Your task to perform on an android device: toggle pop-ups in chrome Image 0: 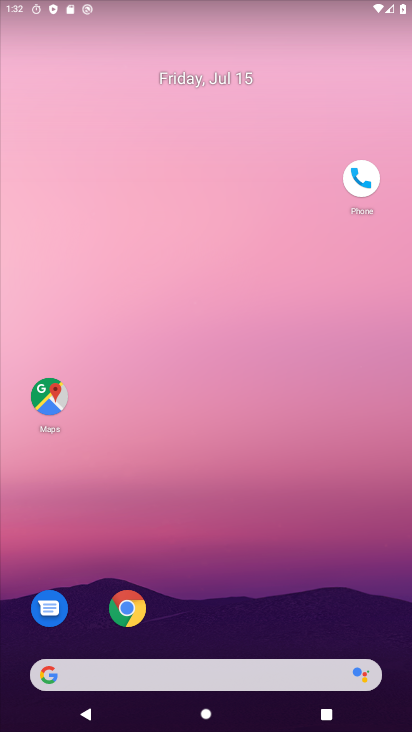
Step 0: drag from (216, 493) to (297, 57)
Your task to perform on an android device: toggle pop-ups in chrome Image 1: 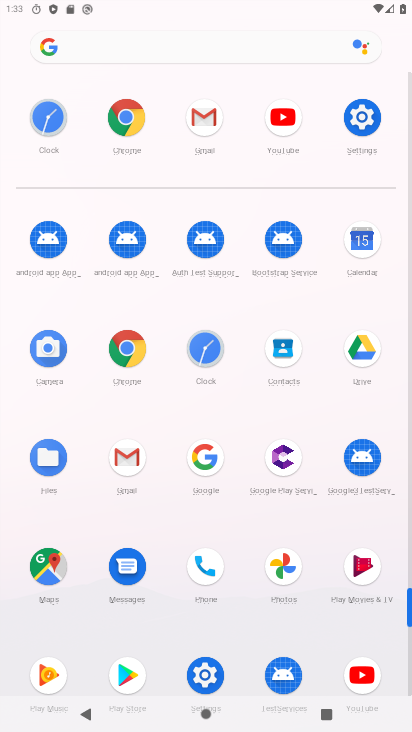
Step 1: drag from (203, 580) to (252, 243)
Your task to perform on an android device: toggle pop-ups in chrome Image 2: 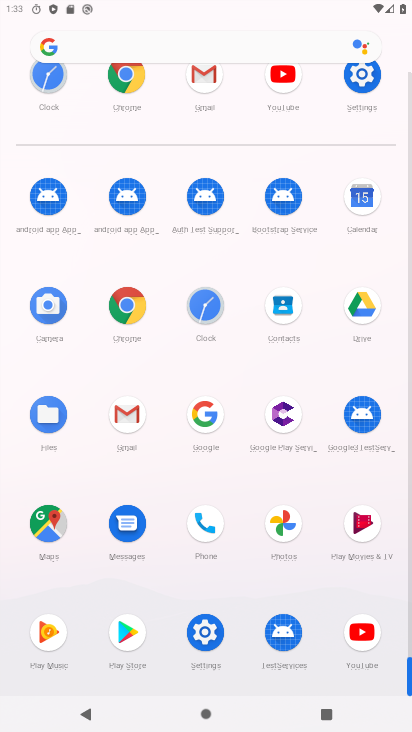
Step 2: click (117, 307)
Your task to perform on an android device: toggle pop-ups in chrome Image 3: 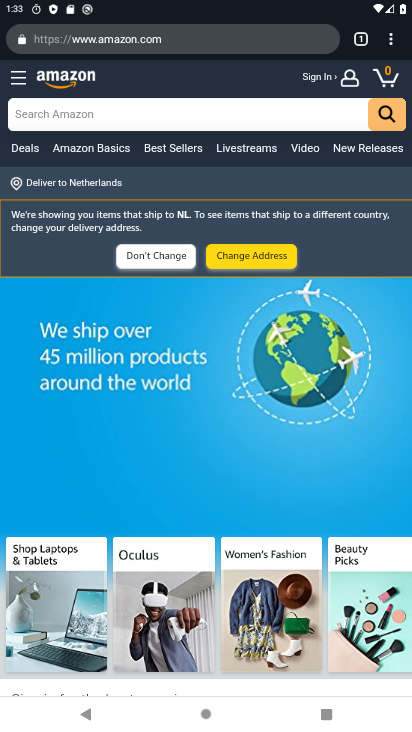
Step 3: drag from (307, 598) to (308, 281)
Your task to perform on an android device: toggle pop-ups in chrome Image 4: 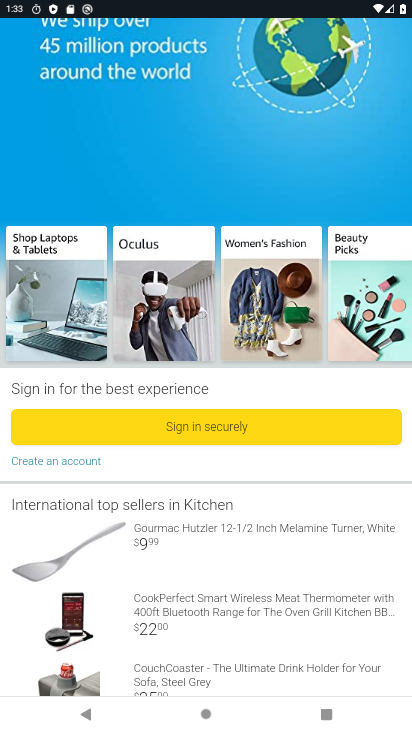
Step 4: drag from (288, 174) to (355, 699)
Your task to perform on an android device: toggle pop-ups in chrome Image 5: 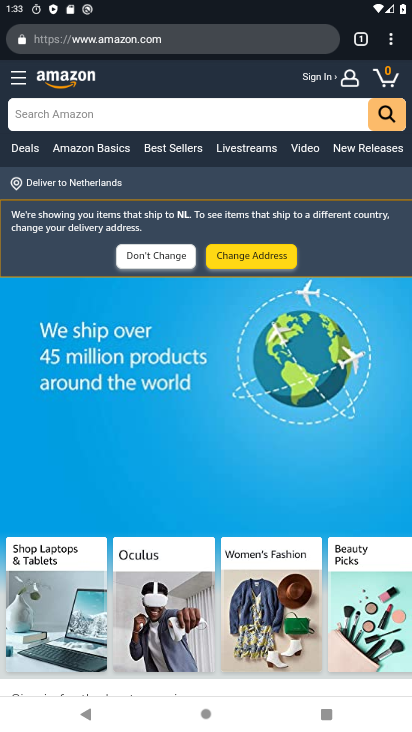
Step 5: click (388, 32)
Your task to perform on an android device: toggle pop-ups in chrome Image 6: 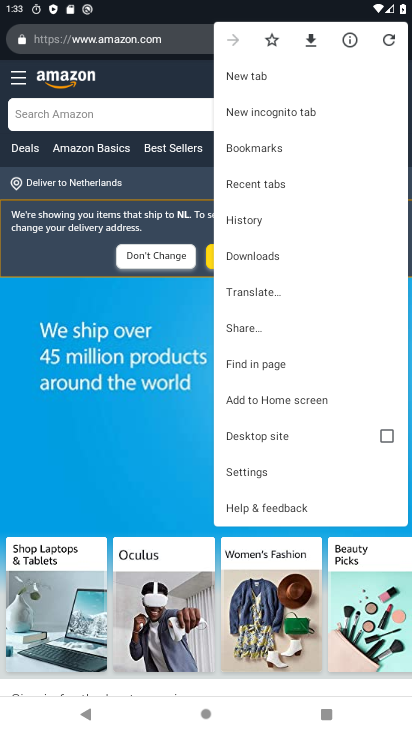
Step 6: click (257, 472)
Your task to perform on an android device: toggle pop-ups in chrome Image 7: 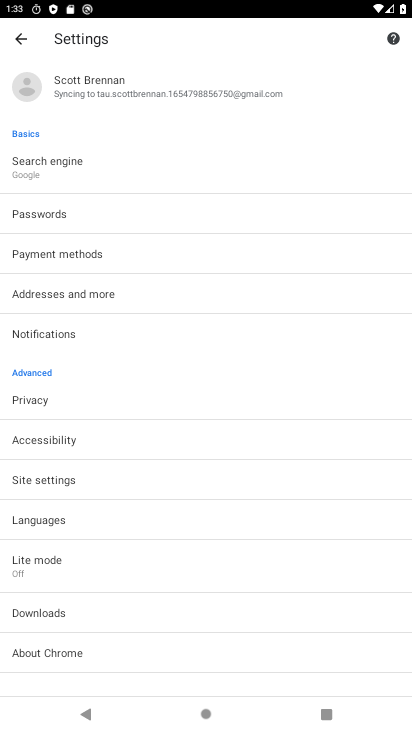
Step 7: click (66, 524)
Your task to perform on an android device: toggle pop-ups in chrome Image 8: 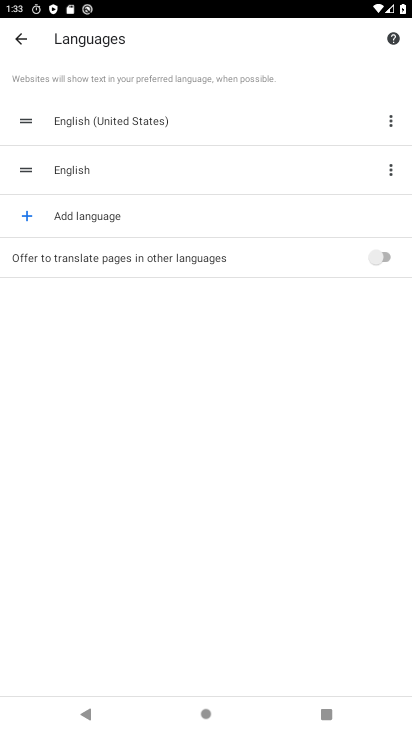
Step 8: click (26, 35)
Your task to perform on an android device: toggle pop-ups in chrome Image 9: 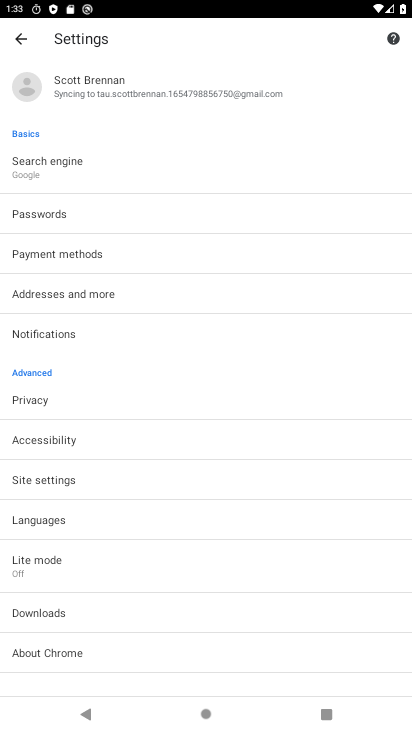
Step 9: click (52, 485)
Your task to perform on an android device: toggle pop-ups in chrome Image 10: 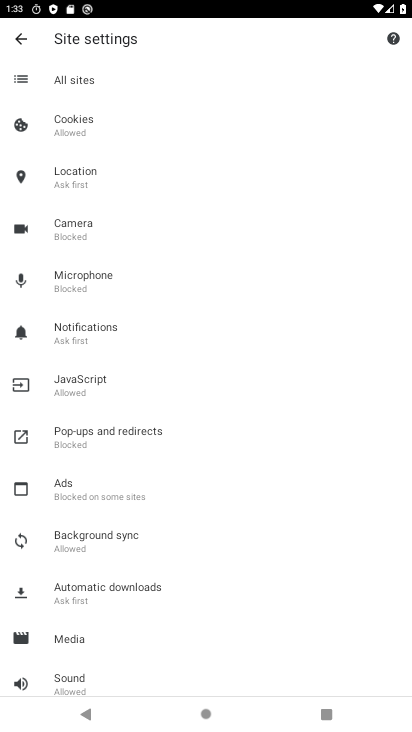
Step 10: click (121, 438)
Your task to perform on an android device: toggle pop-ups in chrome Image 11: 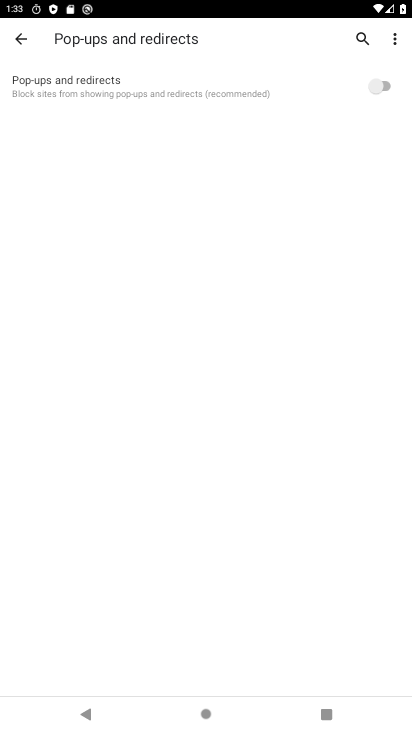
Step 11: click (372, 85)
Your task to perform on an android device: toggle pop-ups in chrome Image 12: 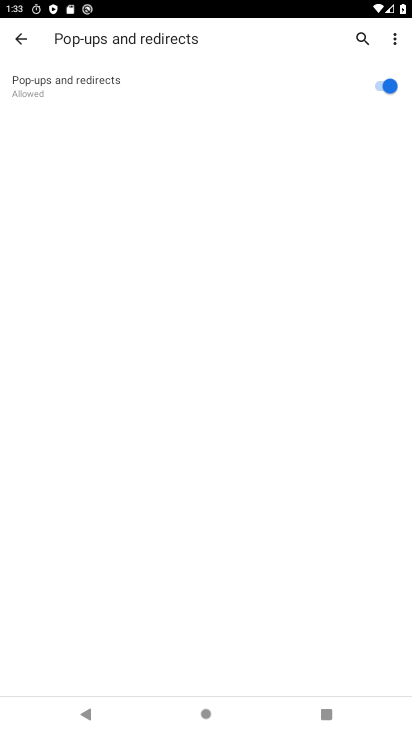
Step 12: task complete